Your task to perform on an android device: Open notification settings Image 0: 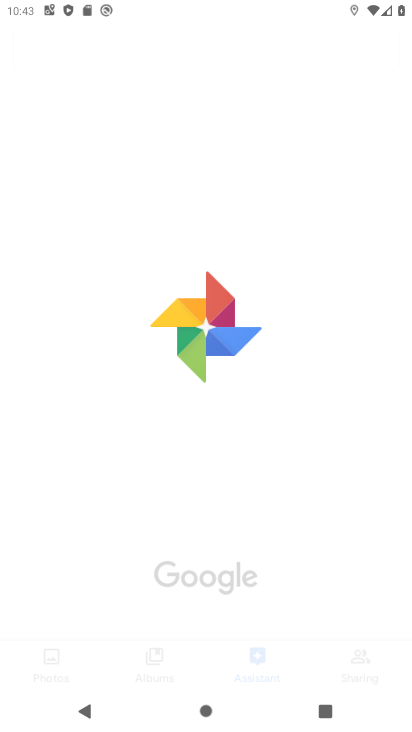
Step 0: drag from (267, 553) to (238, 84)
Your task to perform on an android device: Open notification settings Image 1: 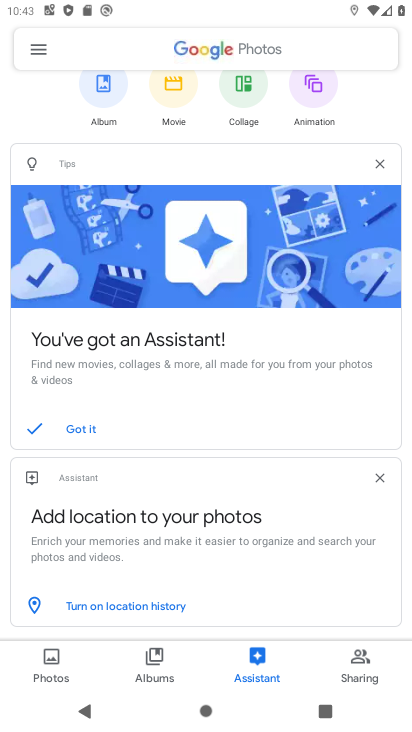
Step 1: press home button
Your task to perform on an android device: Open notification settings Image 2: 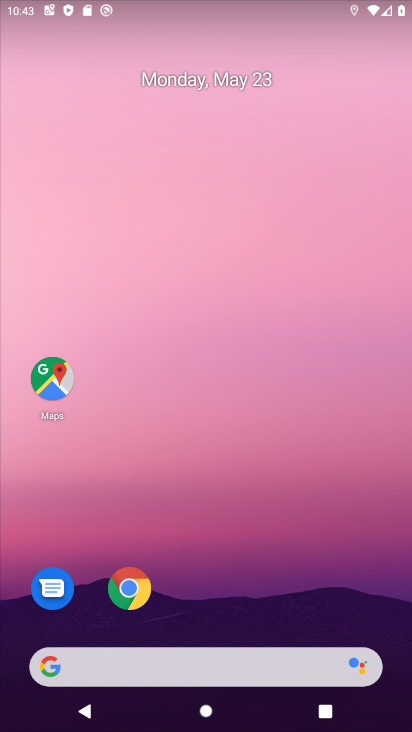
Step 2: drag from (213, 564) to (177, 123)
Your task to perform on an android device: Open notification settings Image 3: 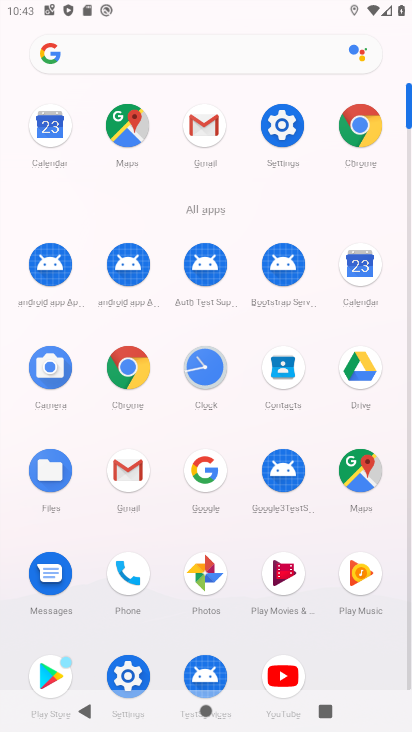
Step 3: click (127, 681)
Your task to perform on an android device: Open notification settings Image 4: 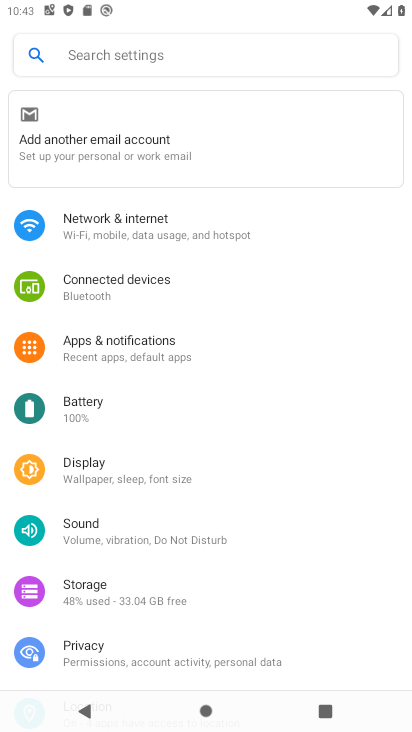
Step 4: click (106, 359)
Your task to perform on an android device: Open notification settings Image 5: 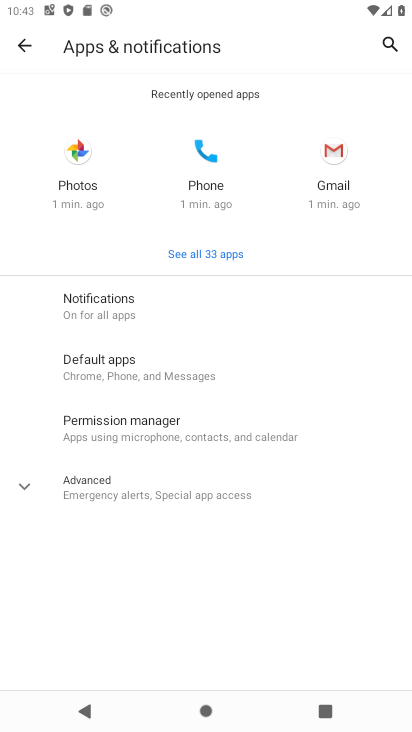
Step 5: click (84, 315)
Your task to perform on an android device: Open notification settings Image 6: 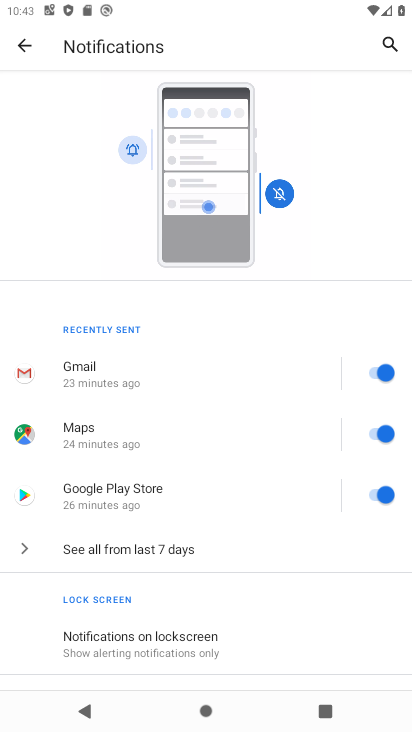
Step 6: task complete